Your task to perform on an android device: Go to CNN.com Image 0: 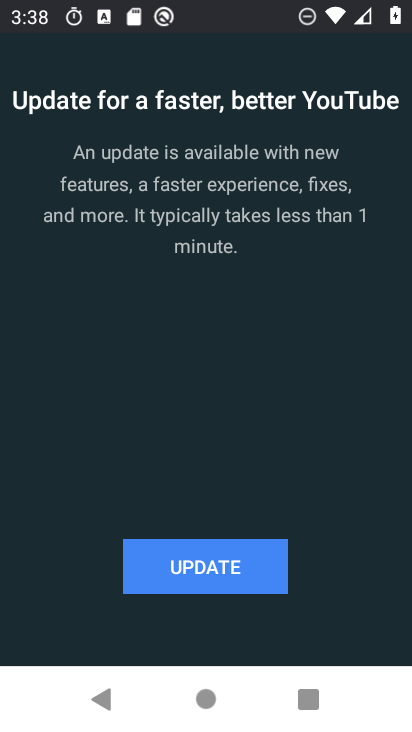
Step 0: press home button
Your task to perform on an android device: Go to CNN.com Image 1: 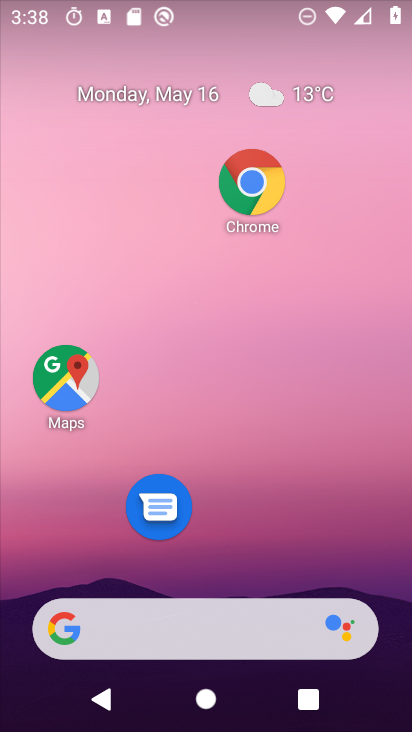
Step 1: drag from (236, 535) to (185, 162)
Your task to perform on an android device: Go to CNN.com Image 2: 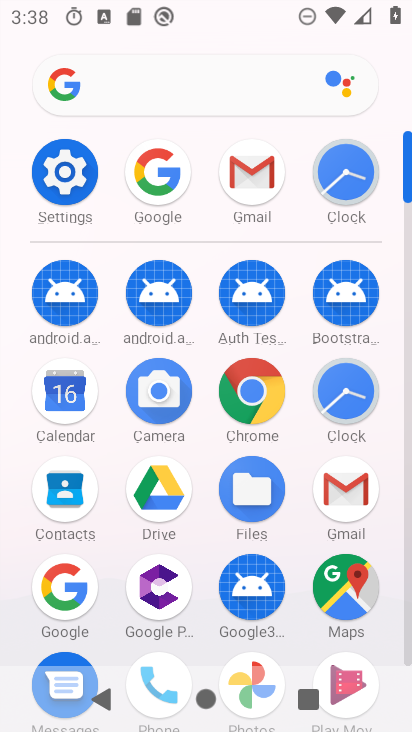
Step 2: click (266, 412)
Your task to perform on an android device: Go to CNN.com Image 3: 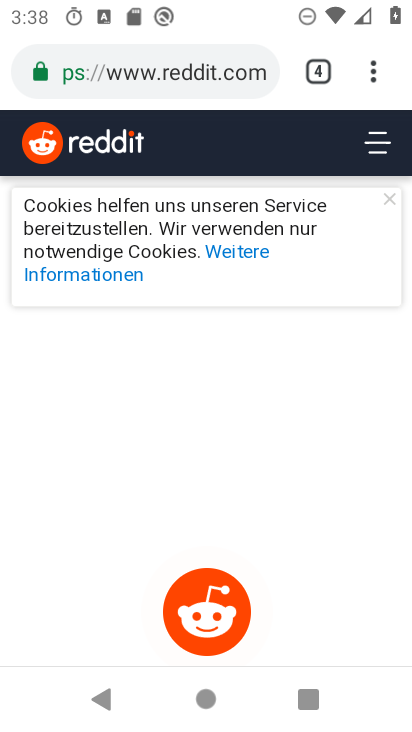
Step 3: click (331, 80)
Your task to perform on an android device: Go to CNN.com Image 4: 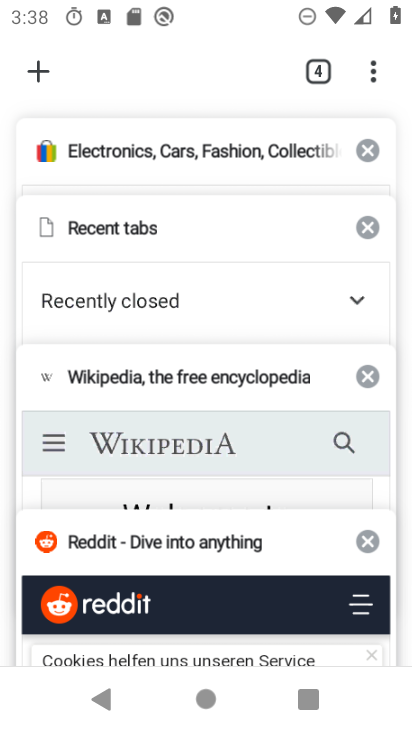
Step 4: click (34, 86)
Your task to perform on an android device: Go to CNN.com Image 5: 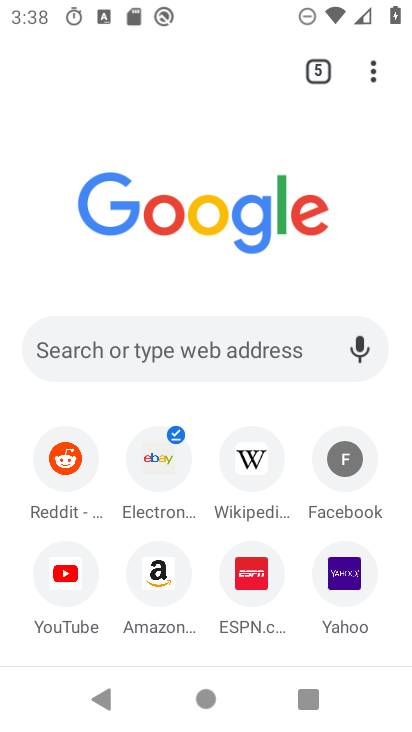
Step 5: click (208, 348)
Your task to perform on an android device: Go to CNN.com Image 6: 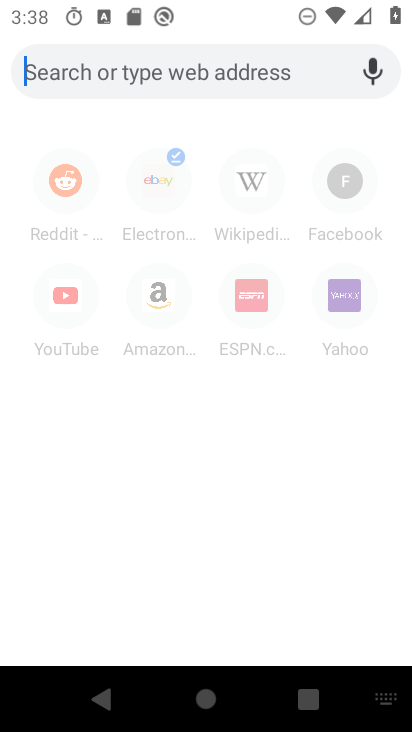
Step 6: type "CNN.com"
Your task to perform on an android device: Go to CNN.com Image 7: 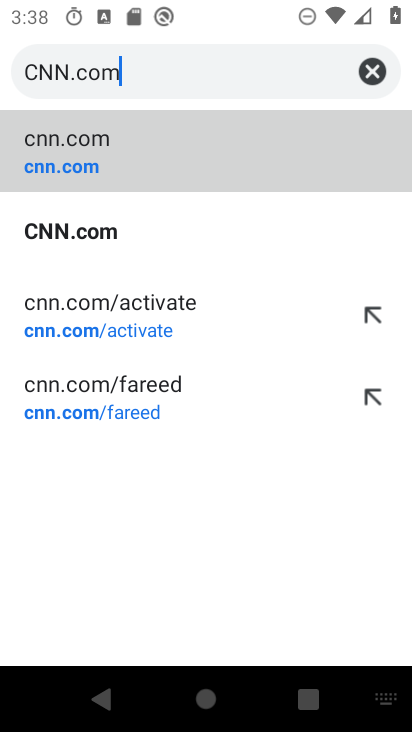
Step 7: type ""
Your task to perform on an android device: Go to CNN.com Image 8: 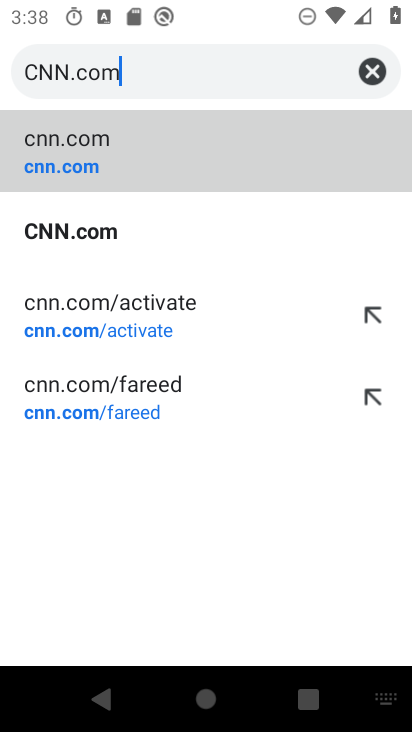
Step 8: click (127, 165)
Your task to perform on an android device: Go to CNN.com Image 9: 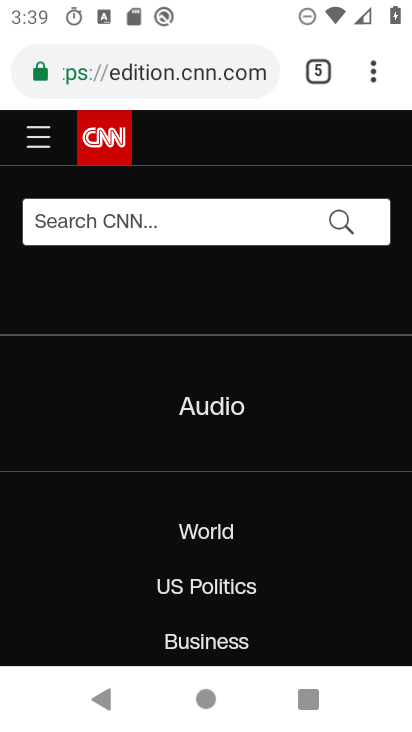
Step 9: task complete